Your task to perform on an android device: turn on the 12-hour format for clock Image 0: 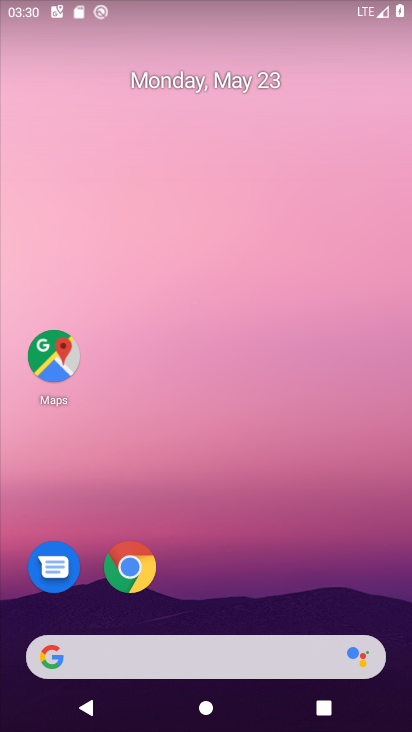
Step 0: drag from (8, 674) to (246, 251)
Your task to perform on an android device: turn on the 12-hour format for clock Image 1: 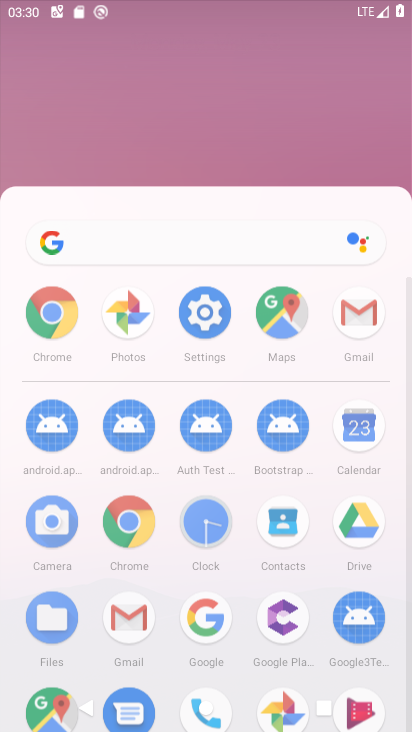
Step 1: click (286, 178)
Your task to perform on an android device: turn on the 12-hour format for clock Image 2: 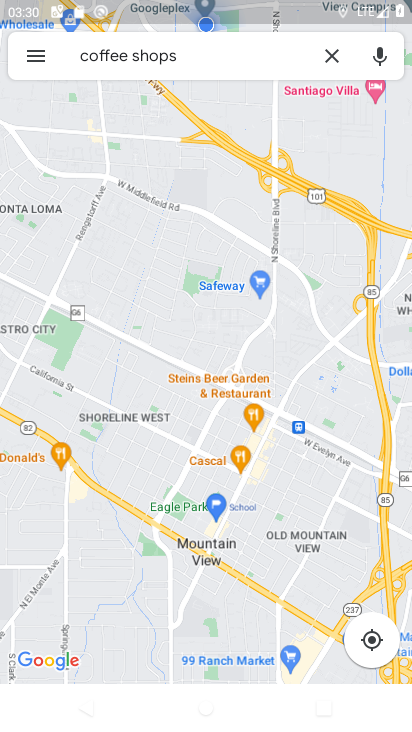
Step 2: press back button
Your task to perform on an android device: turn on the 12-hour format for clock Image 3: 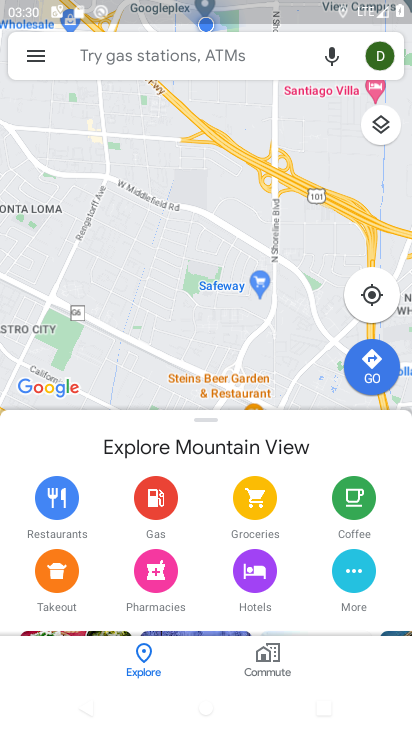
Step 3: click (361, 221)
Your task to perform on an android device: turn on the 12-hour format for clock Image 4: 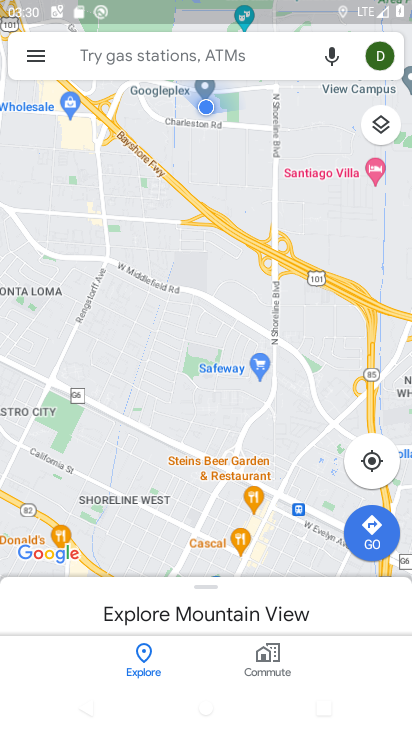
Step 4: press home button
Your task to perform on an android device: turn on the 12-hour format for clock Image 5: 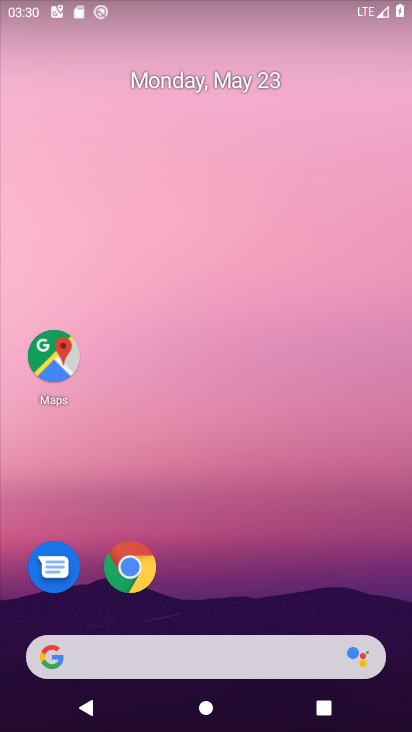
Step 5: drag from (6, 644) to (278, 106)
Your task to perform on an android device: turn on the 12-hour format for clock Image 6: 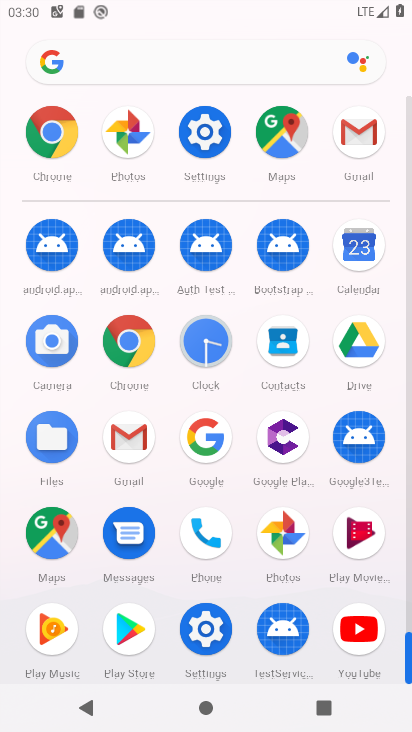
Step 6: click (205, 346)
Your task to perform on an android device: turn on the 12-hour format for clock Image 7: 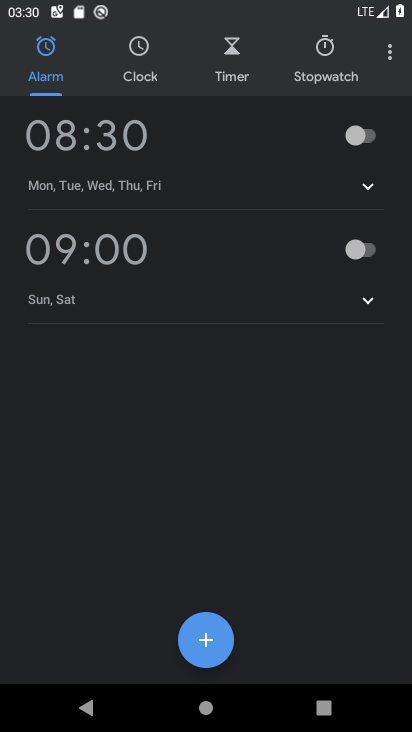
Step 7: click (387, 53)
Your task to perform on an android device: turn on the 12-hour format for clock Image 8: 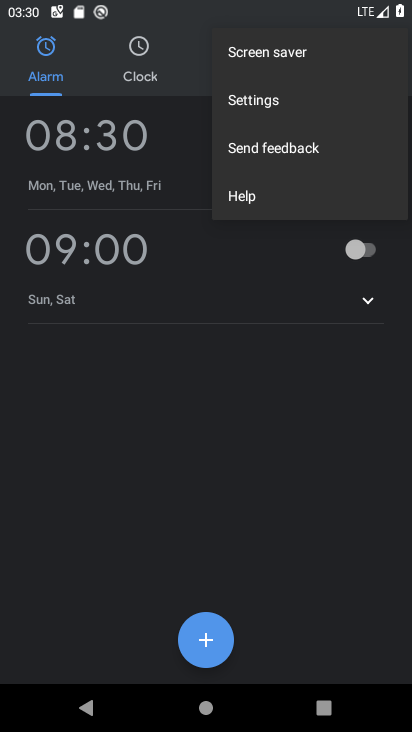
Step 8: click (273, 105)
Your task to perform on an android device: turn on the 12-hour format for clock Image 9: 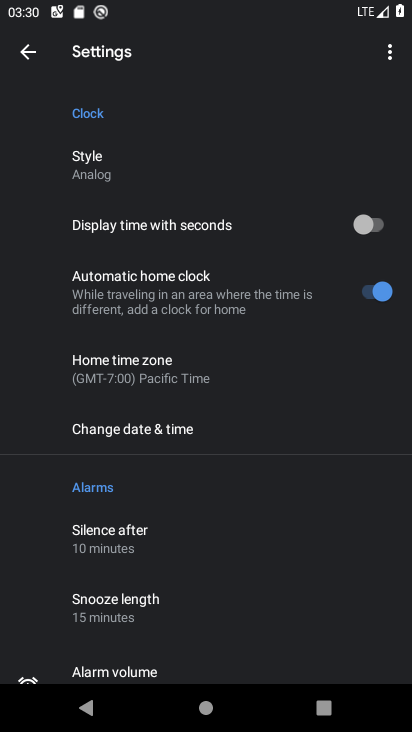
Step 9: click (112, 419)
Your task to perform on an android device: turn on the 12-hour format for clock Image 10: 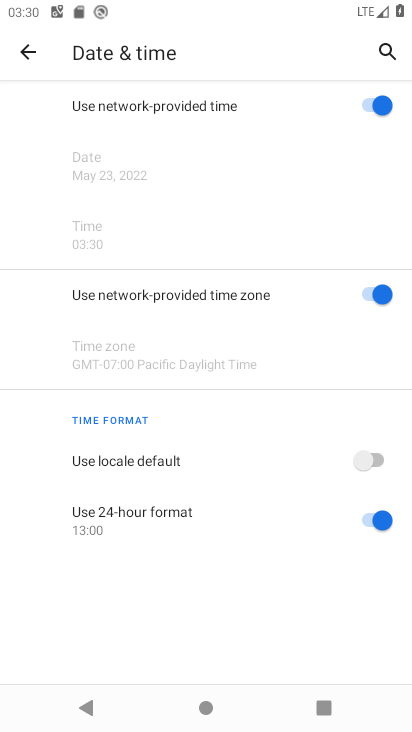
Step 10: click (384, 520)
Your task to perform on an android device: turn on the 12-hour format for clock Image 11: 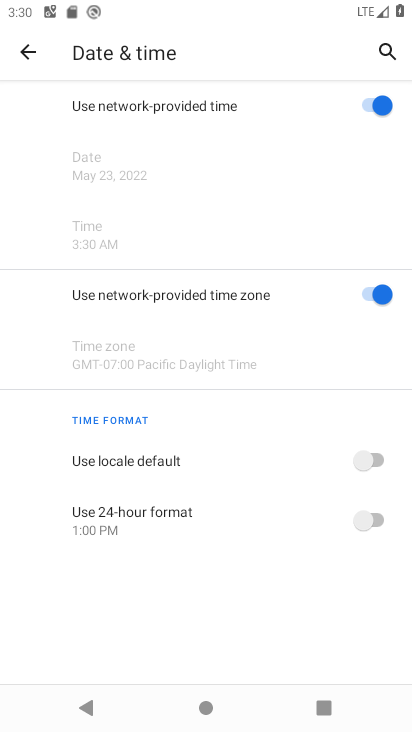
Step 11: click (360, 461)
Your task to perform on an android device: turn on the 12-hour format for clock Image 12: 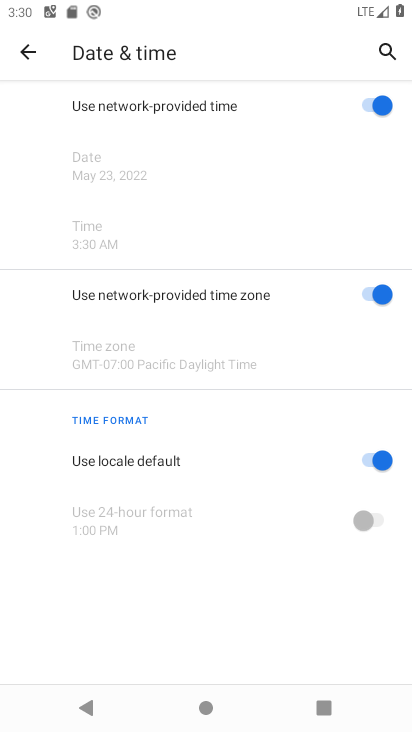
Step 12: task complete